Your task to perform on an android device: open app "DoorDash - Dasher" Image 0: 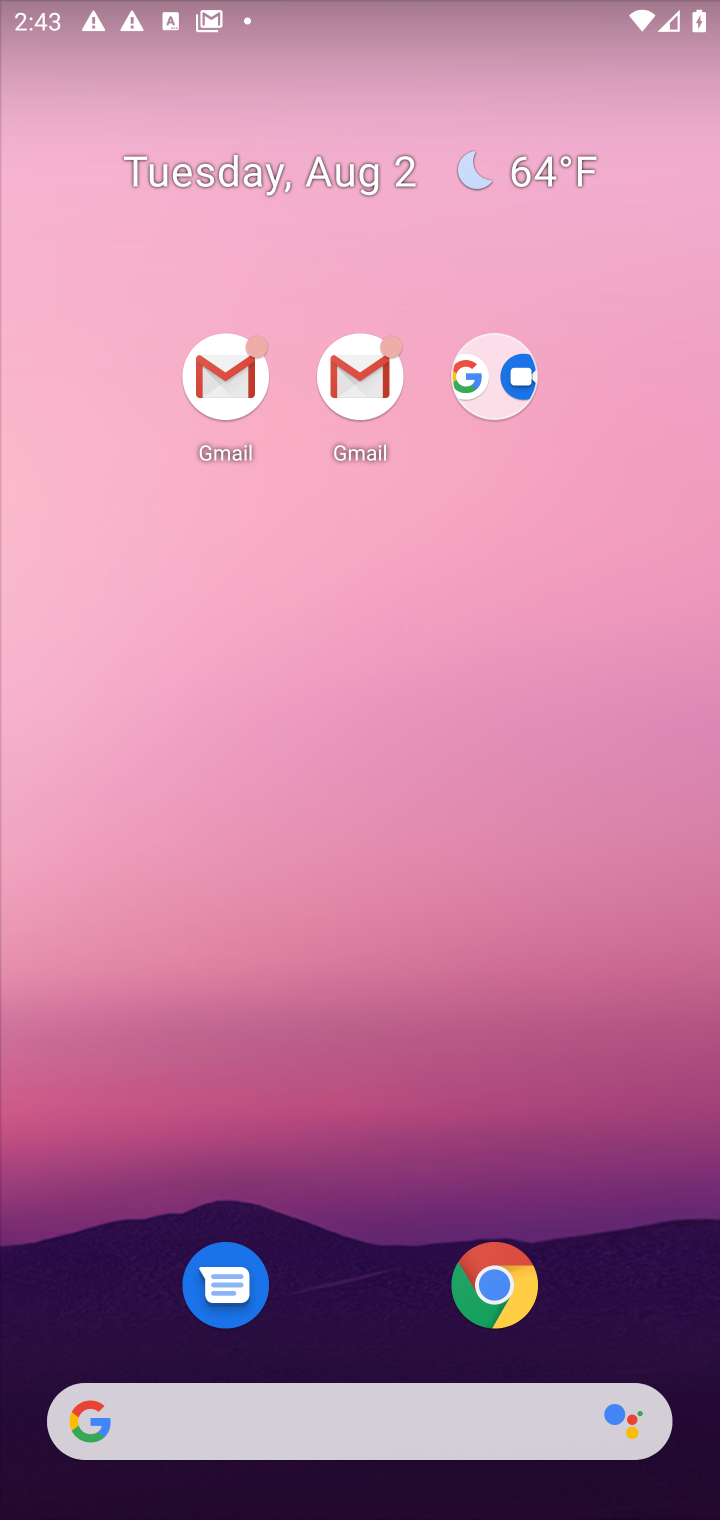
Step 0: drag from (359, 1338) to (415, 244)
Your task to perform on an android device: open app "DoorDash - Dasher" Image 1: 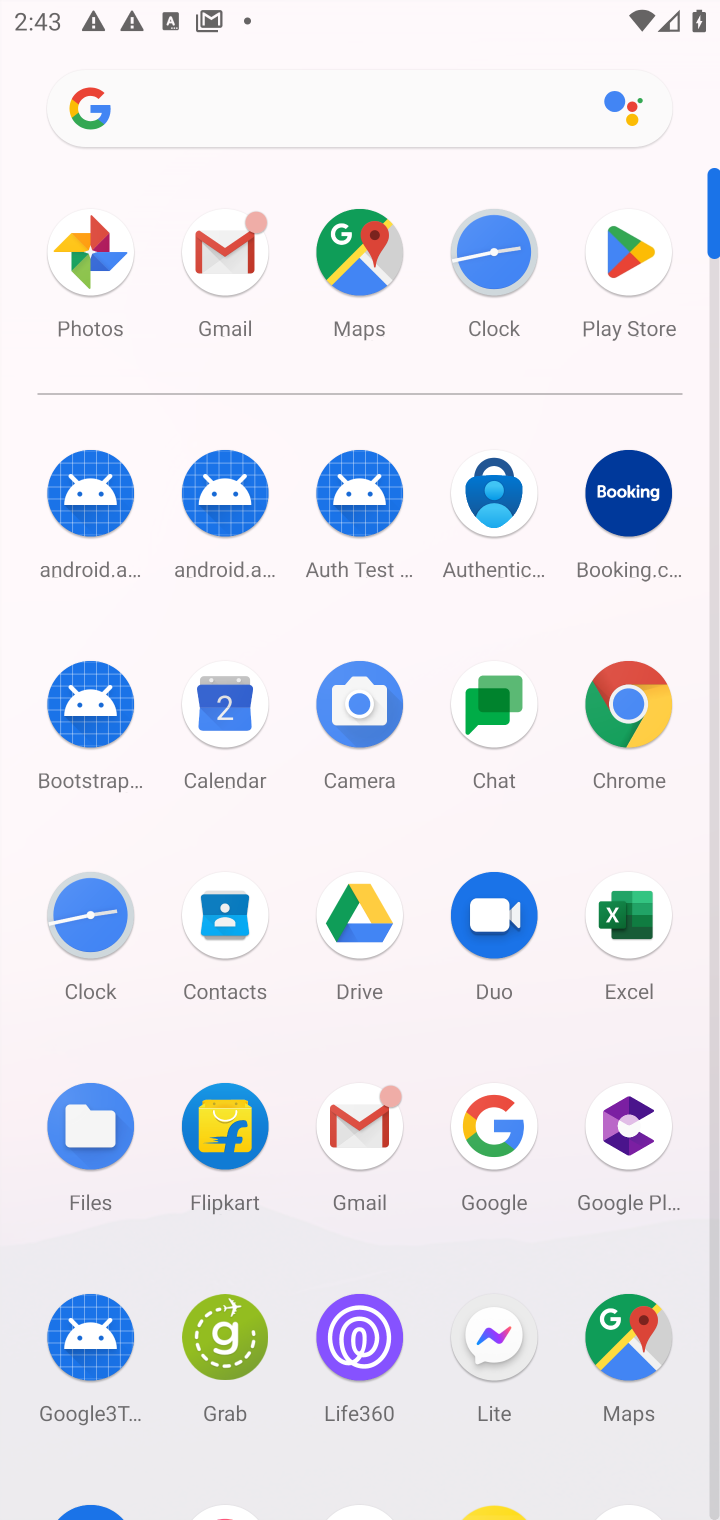
Step 1: drag from (414, 1260) to (522, 668)
Your task to perform on an android device: open app "DoorDash - Dasher" Image 2: 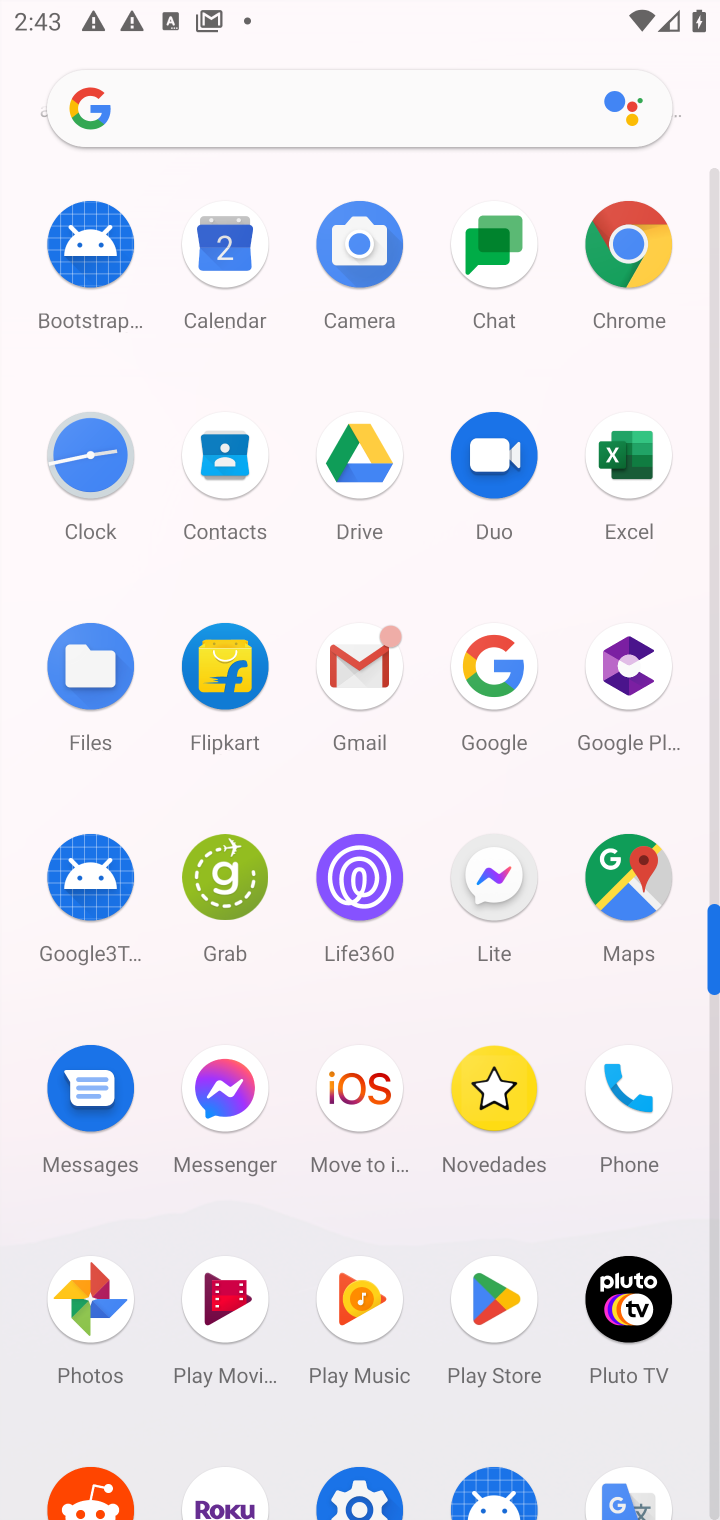
Step 2: click (504, 1291)
Your task to perform on an android device: open app "DoorDash - Dasher" Image 3: 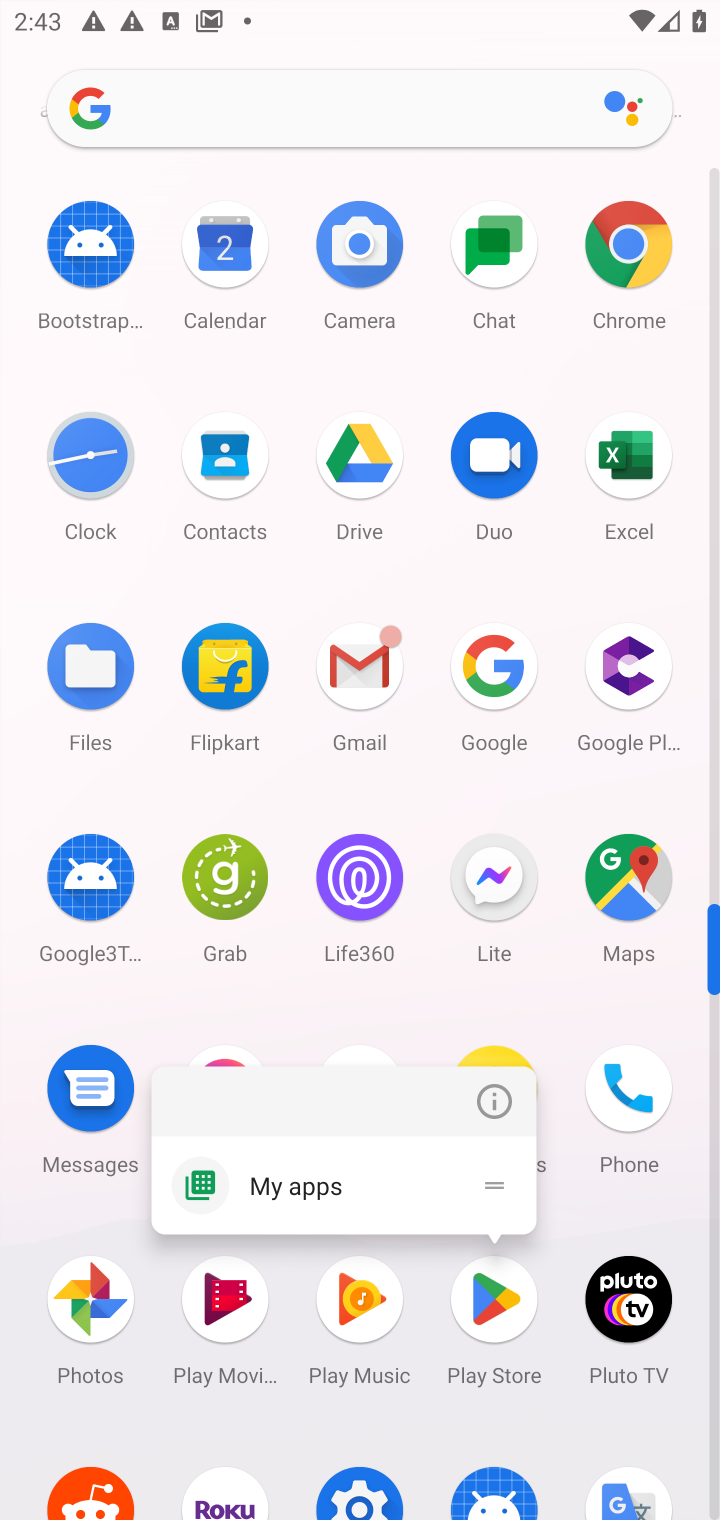
Step 3: click (497, 1293)
Your task to perform on an android device: open app "DoorDash - Dasher" Image 4: 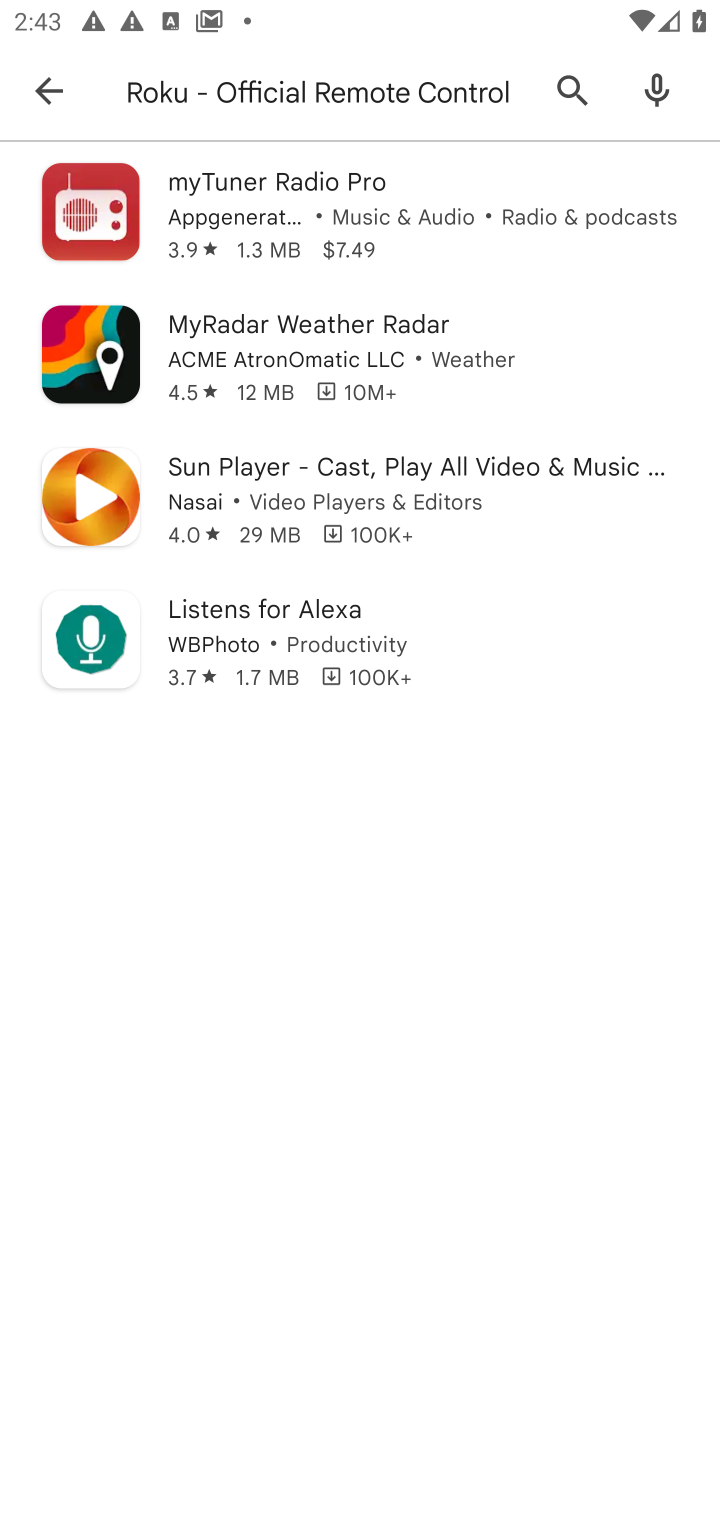
Step 4: click (467, 76)
Your task to perform on an android device: open app "DoorDash - Dasher" Image 5: 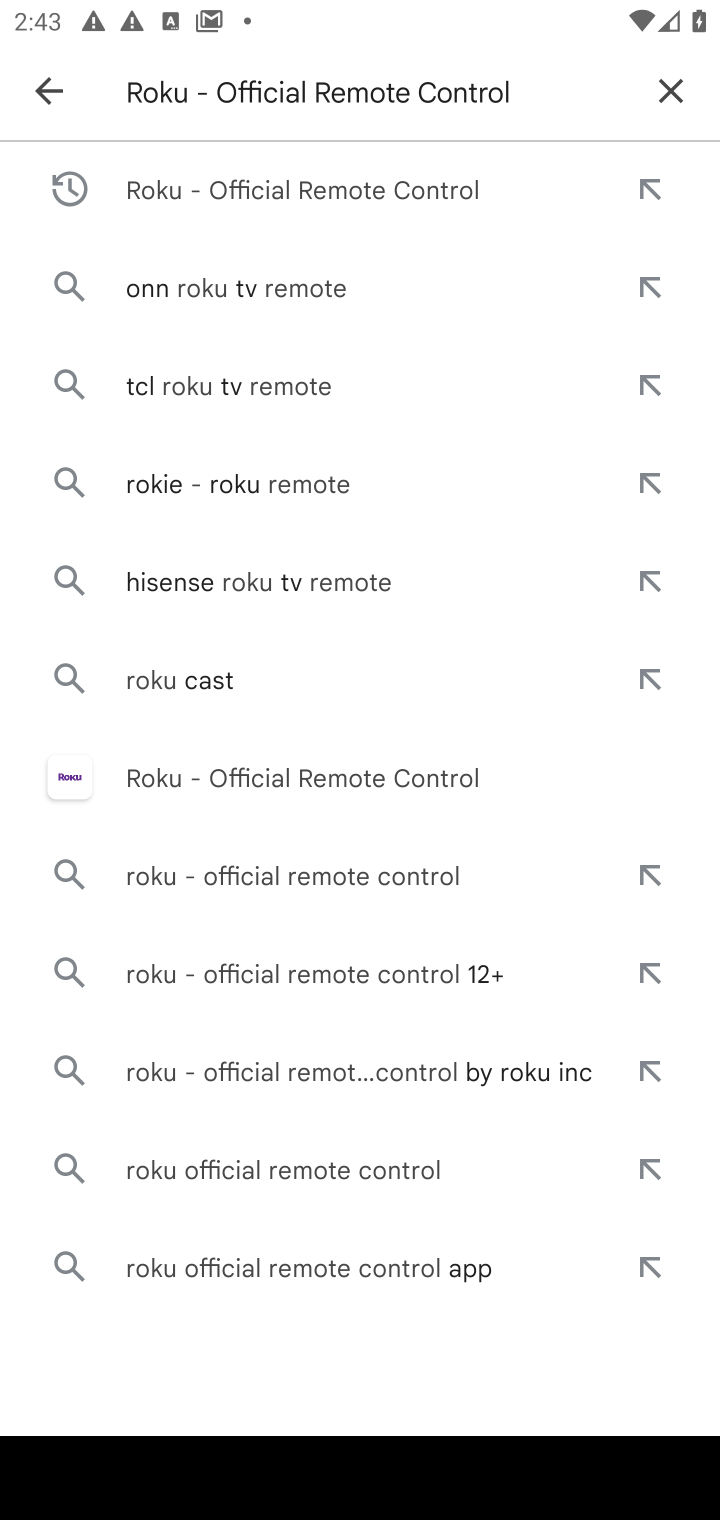
Step 5: click (673, 85)
Your task to perform on an android device: open app "DoorDash - Dasher" Image 6: 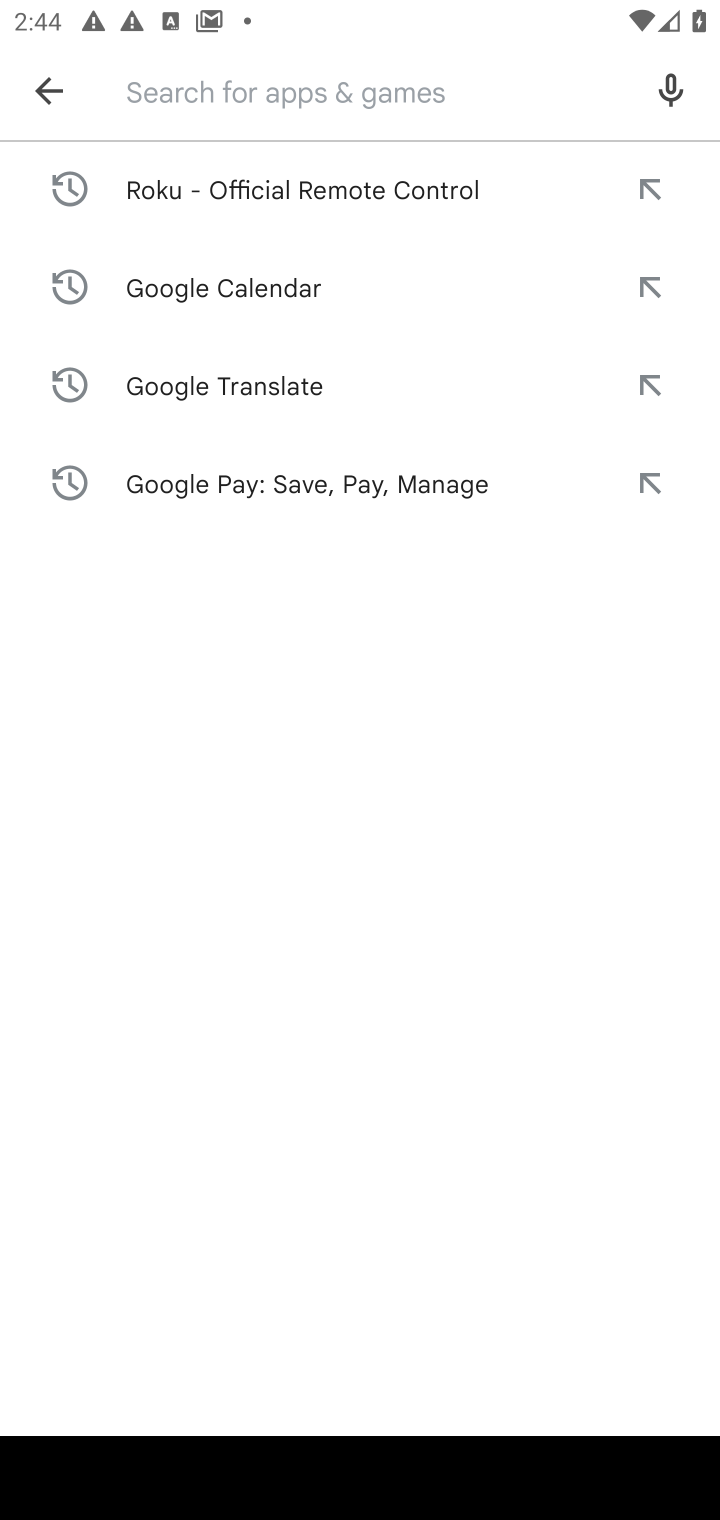
Step 6: type "DoorDash - Dasher"
Your task to perform on an android device: open app "DoorDash - Dasher" Image 7: 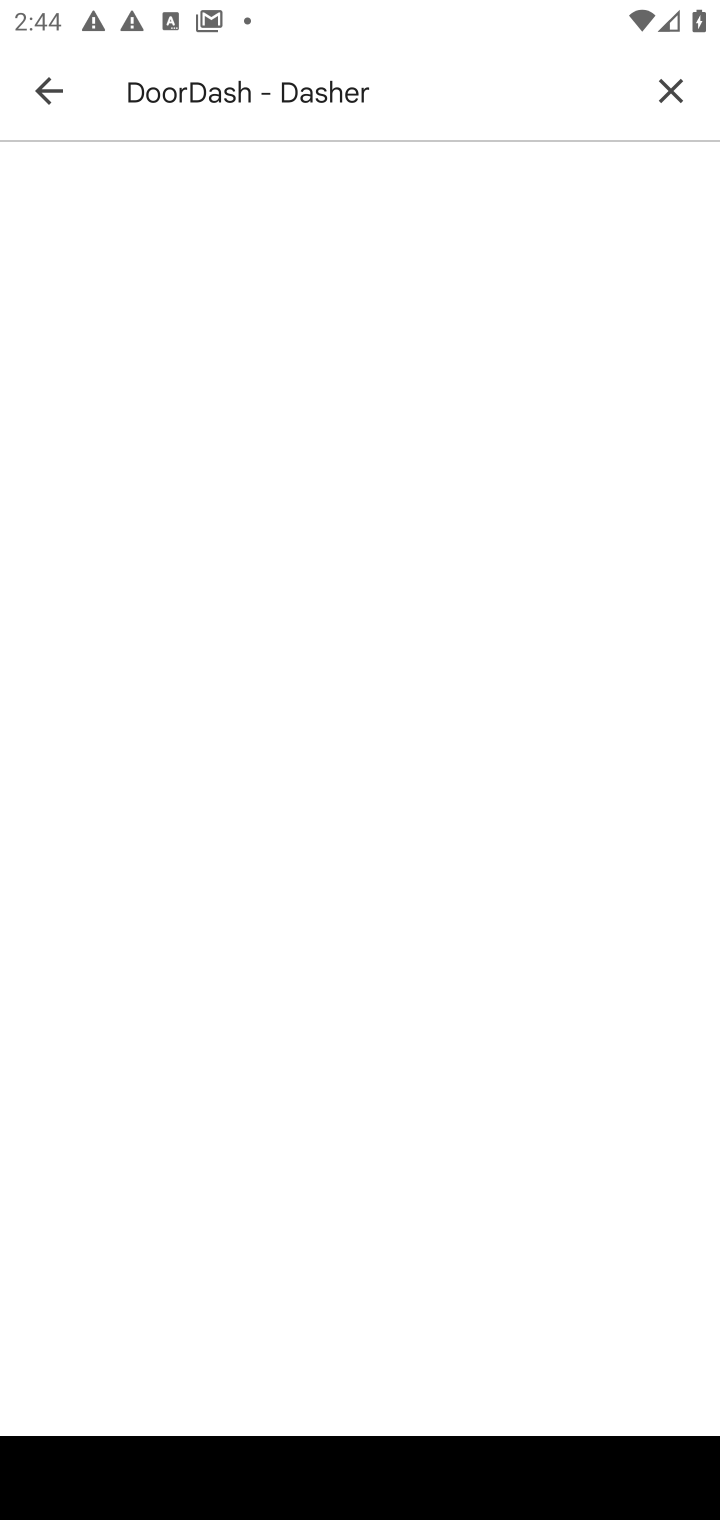
Step 7: press enter
Your task to perform on an android device: open app "DoorDash - Dasher" Image 8: 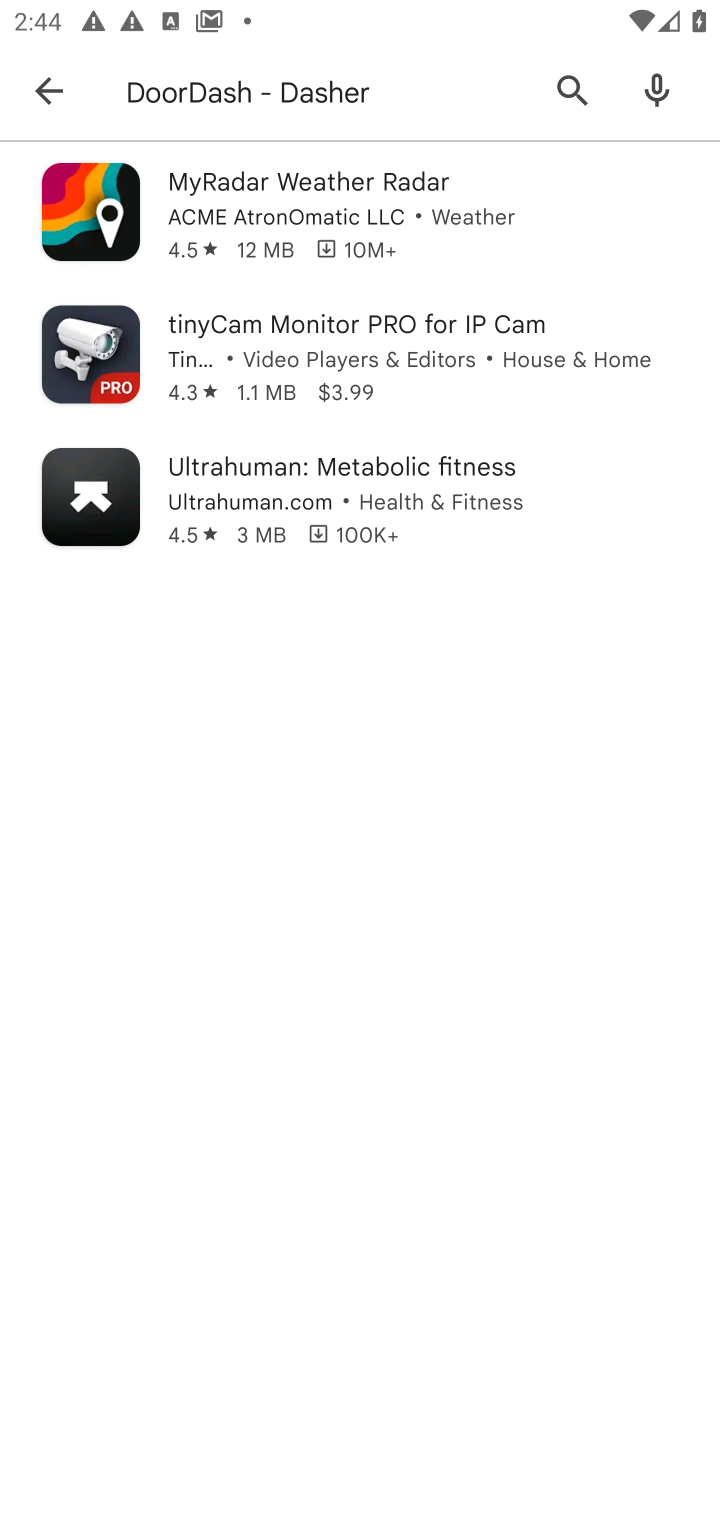
Step 8: task complete